Your task to perform on an android device: remove spam from my inbox in the gmail app Image 0: 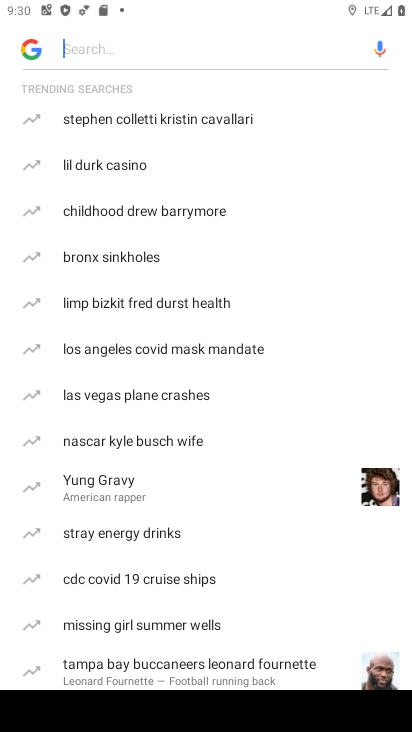
Step 0: press home button
Your task to perform on an android device: remove spam from my inbox in the gmail app Image 1: 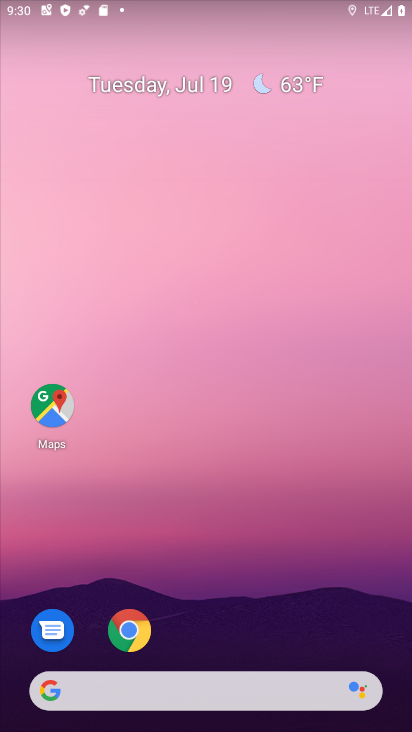
Step 1: drag from (163, 690) to (378, 97)
Your task to perform on an android device: remove spam from my inbox in the gmail app Image 2: 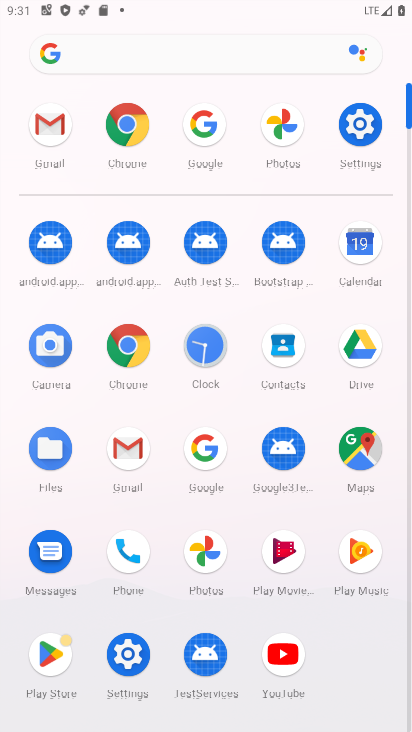
Step 2: click (51, 123)
Your task to perform on an android device: remove spam from my inbox in the gmail app Image 3: 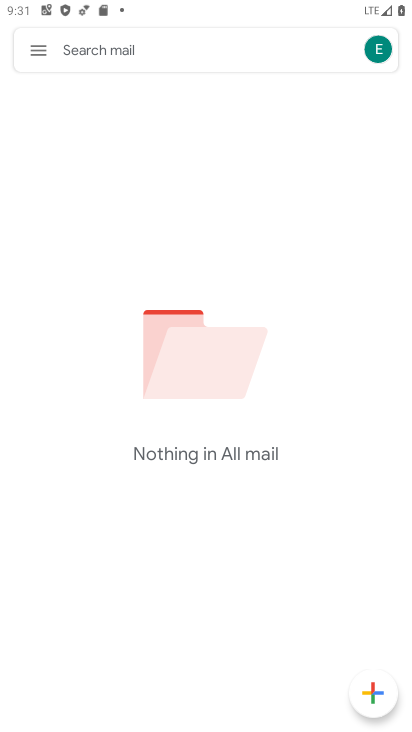
Step 3: click (33, 51)
Your task to perform on an android device: remove spam from my inbox in the gmail app Image 4: 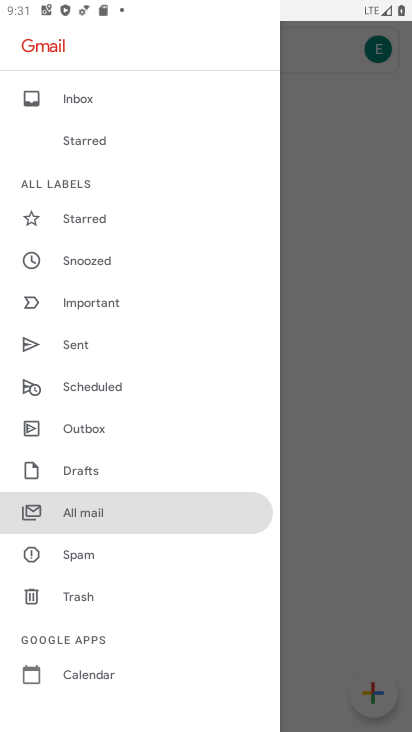
Step 4: drag from (112, 571) to (203, 306)
Your task to perform on an android device: remove spam from my inbox in the gmail app Image 5: 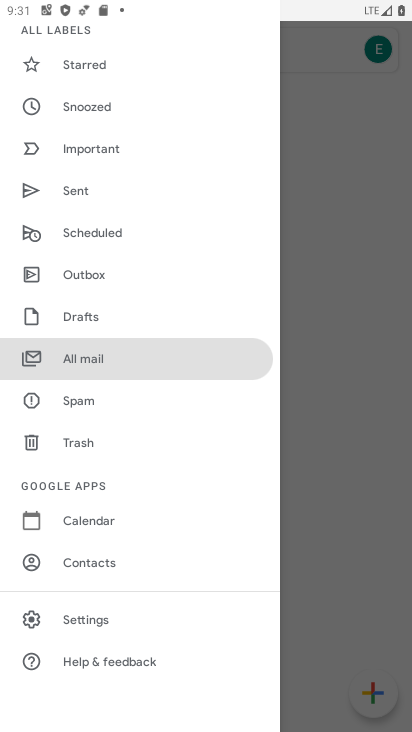
Step 5: click (72, 397)
Your task to perform on an android device: remove spam from my inbox in the gmail app Image 6: 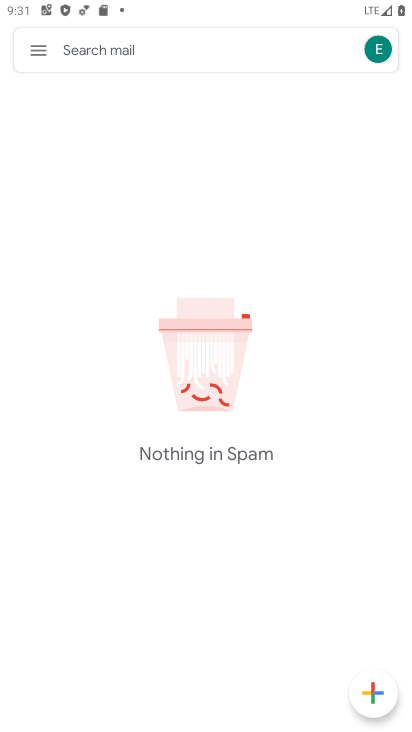
Step 6: task complete